Your task to perform on an android device: Open network settings Image 0: 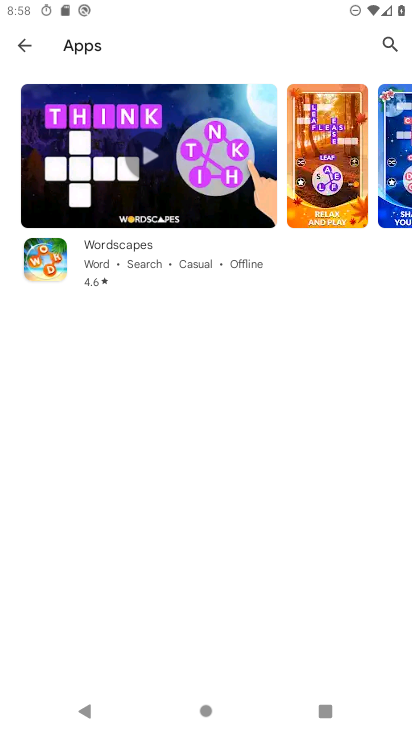
Step 0: press home button
Your task to perform on an android device: Open network settings Image 1: 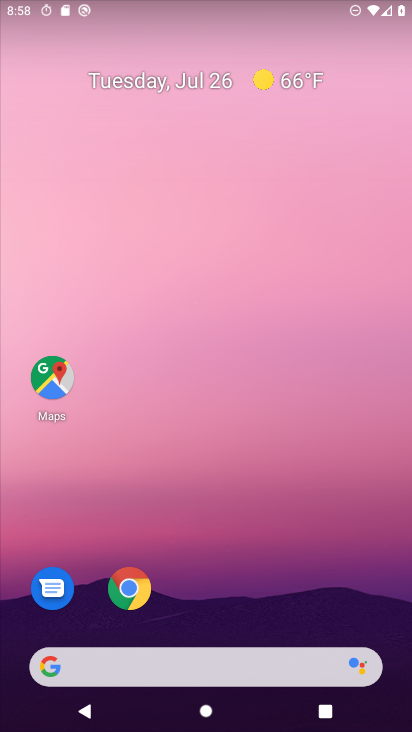
Step 1: drag from (232, 697) to (233, 208)
Your task to perform on an android device: Open network settings Image 2: 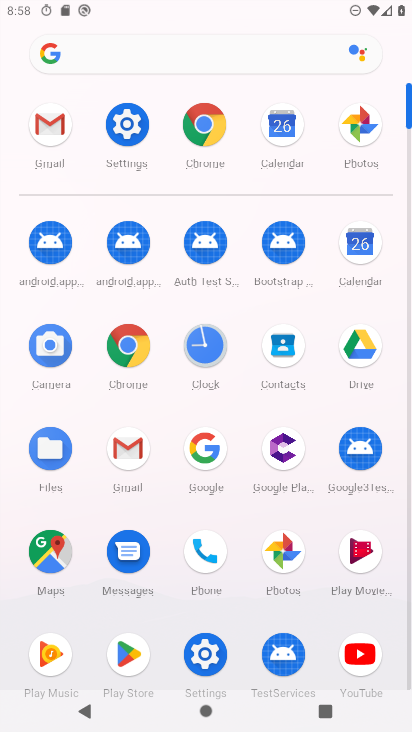
Step 2: click (130, 132)
Your task to perform on an android device: Open network settings Image 3: 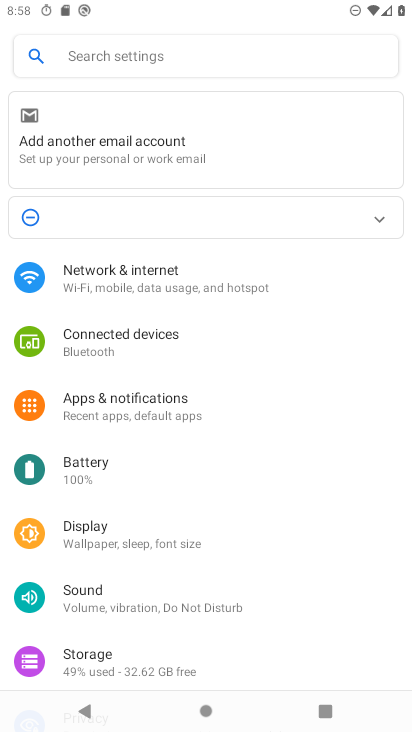
Step 3: click (106, 283)
Your task to perform on an android device: Open network settings Image 4: 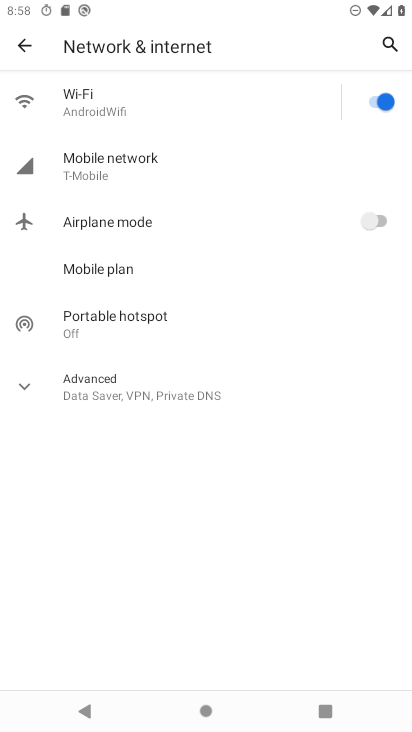
Step 4: task complete